Your task to perform on an android device: Is it going to rain tomorrow? Image 0: 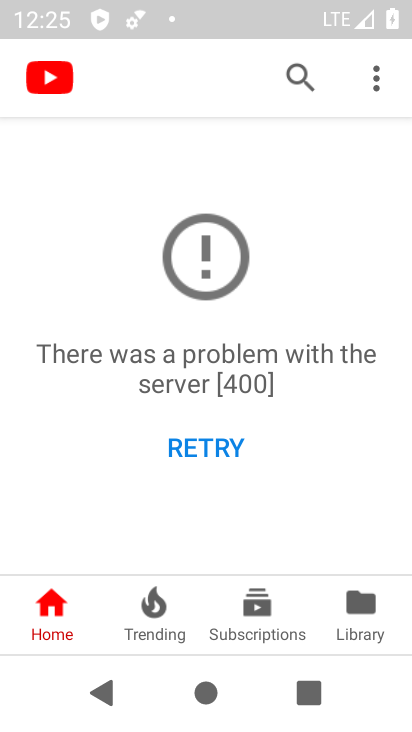
Step 0: press home button
Your task to perform on an android device: Is it going to rain tomorrow? Image 1: 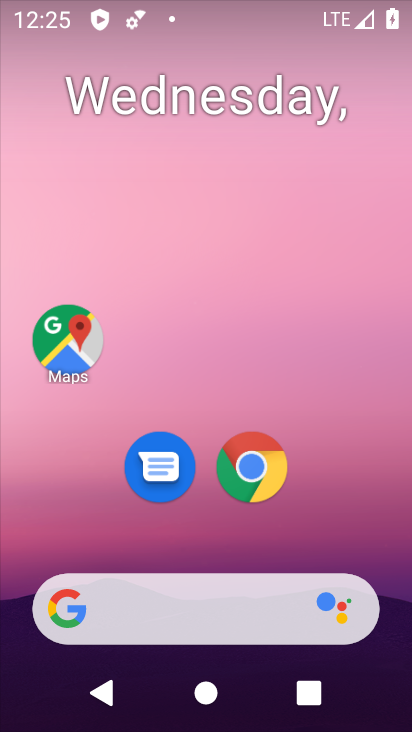
Step 1: click (264, 616)
Your task to perform on an android device: Is it going to rain tomorrow? Image 2: 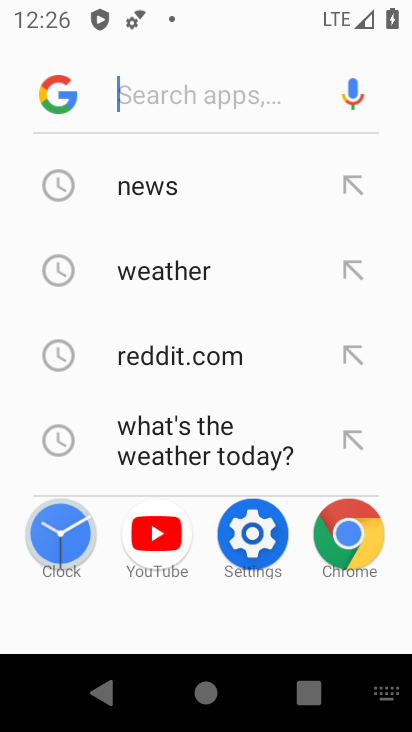
Step 2: click (207, 284)
Your task to perform on an android device: Is it going to rain tomorrow? Image 3: 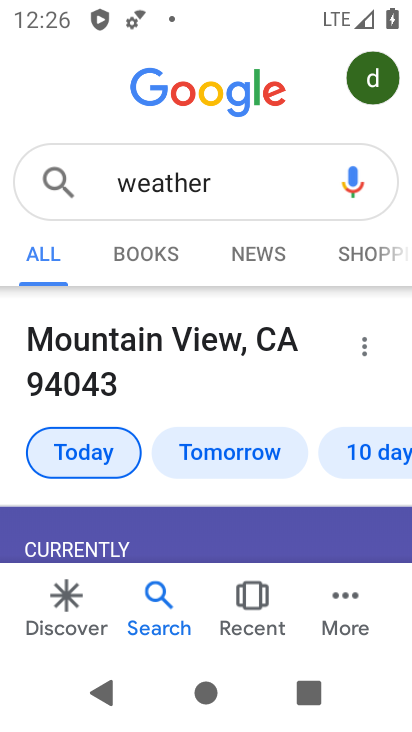
Step 3: click (216, 451)
Your task to perform on an android device: Is it going to rain tomorrow? Image 4: 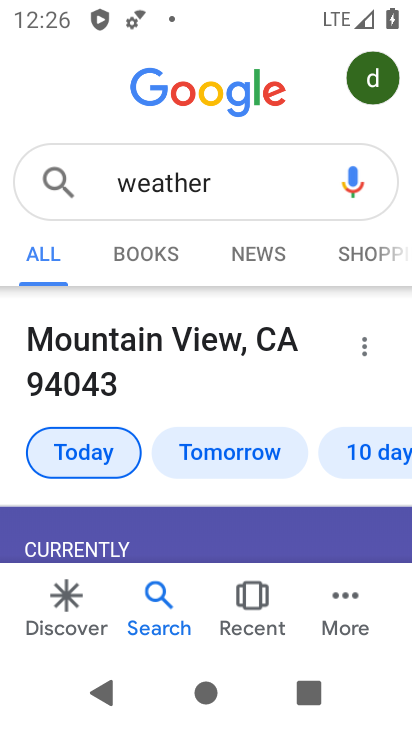
Step 4: click (216, 451)
Your task to perform on an android device: Is it going to rain tomorrow? Image 5: 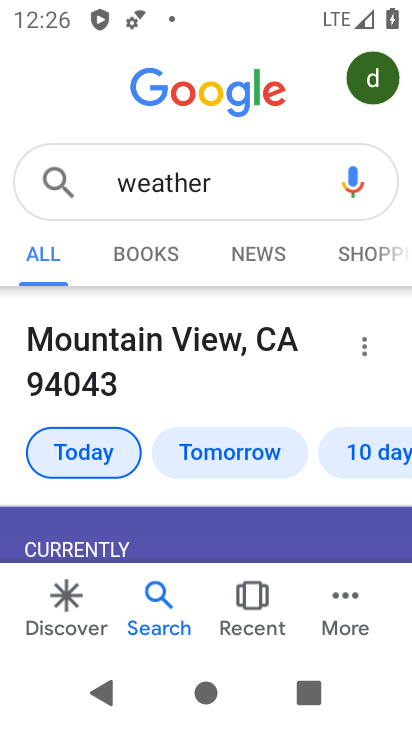
Step 5: click (216, 451)
Your task to perform on an android device: Is it going to rain tomorrow? Image 6: 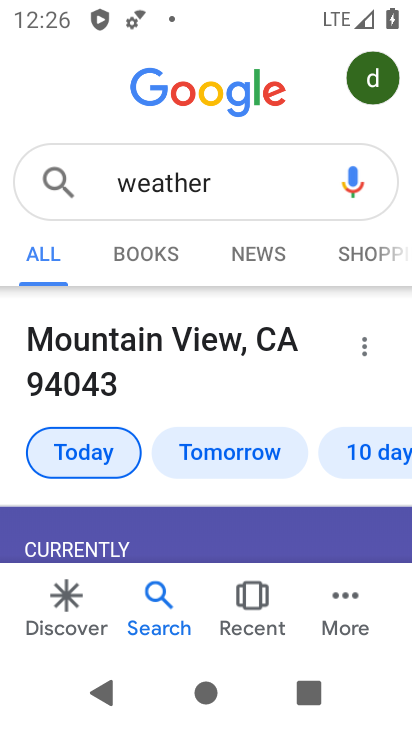
Step 6: click (216, 452)
Your task to perform on an android device: Is it going to rain tomorrow? Image 7: 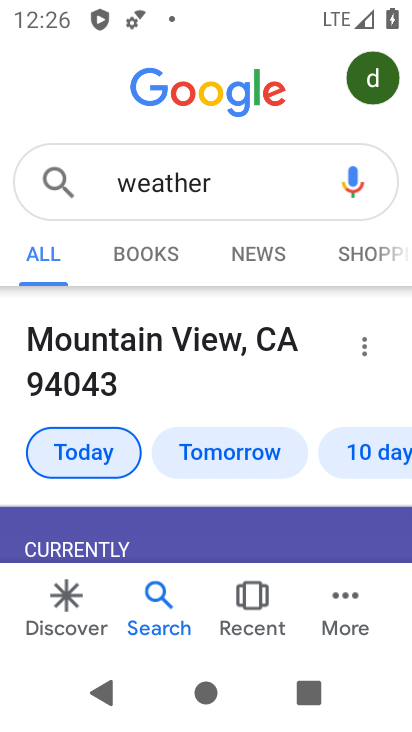
Step 7: task complete